Your task to perform on an android device: What's on my calendar tomorrow? Image 0: 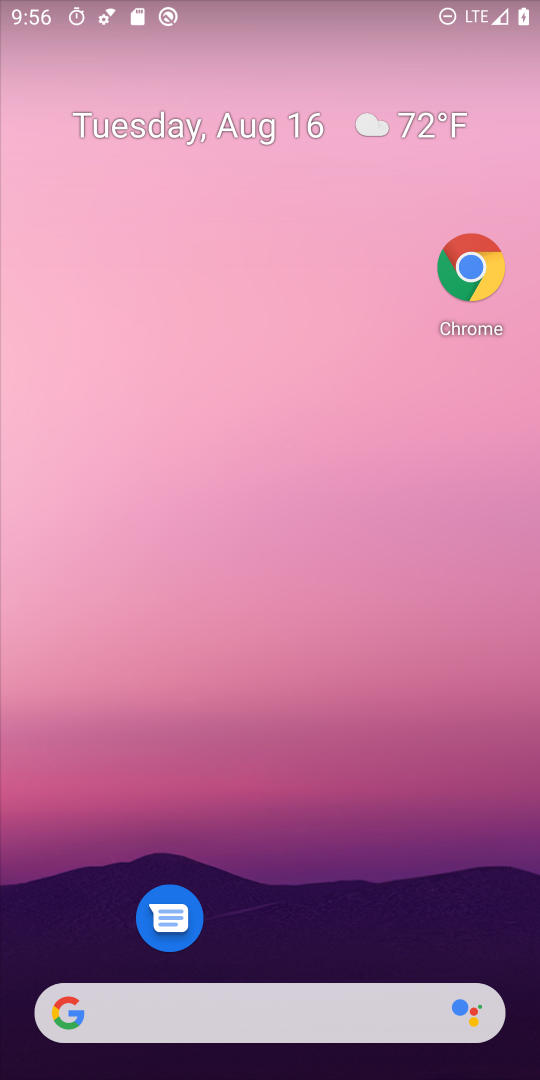
Step 0: drag from (292, 941) to (297, 91)
Your task to perform on an android device: What's on my calendar tomorrow? Image 1: 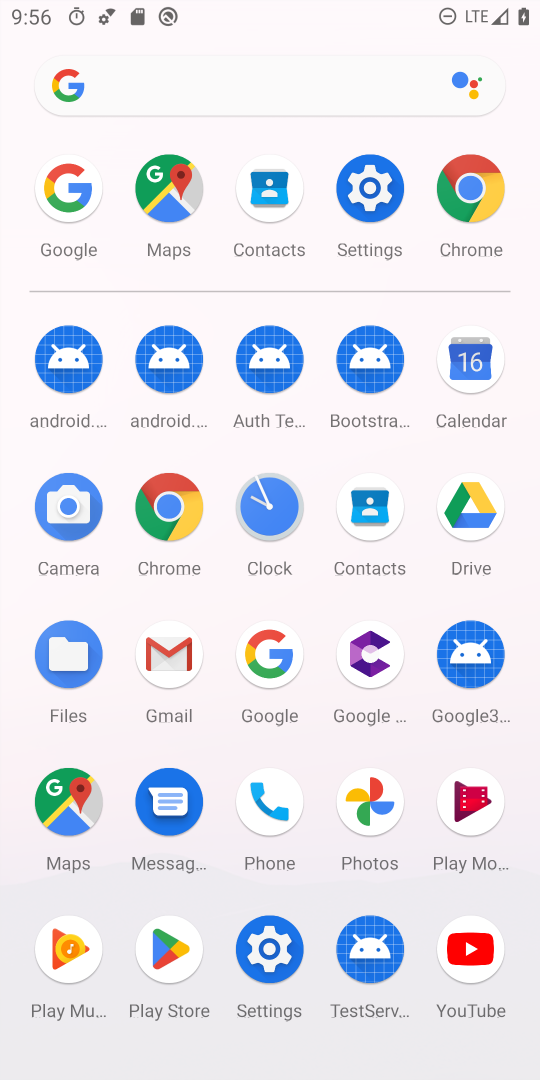
Step 1: click (482, 390)
Your task to perform on an android device: What's on my calendar tomorrow? Image 2: 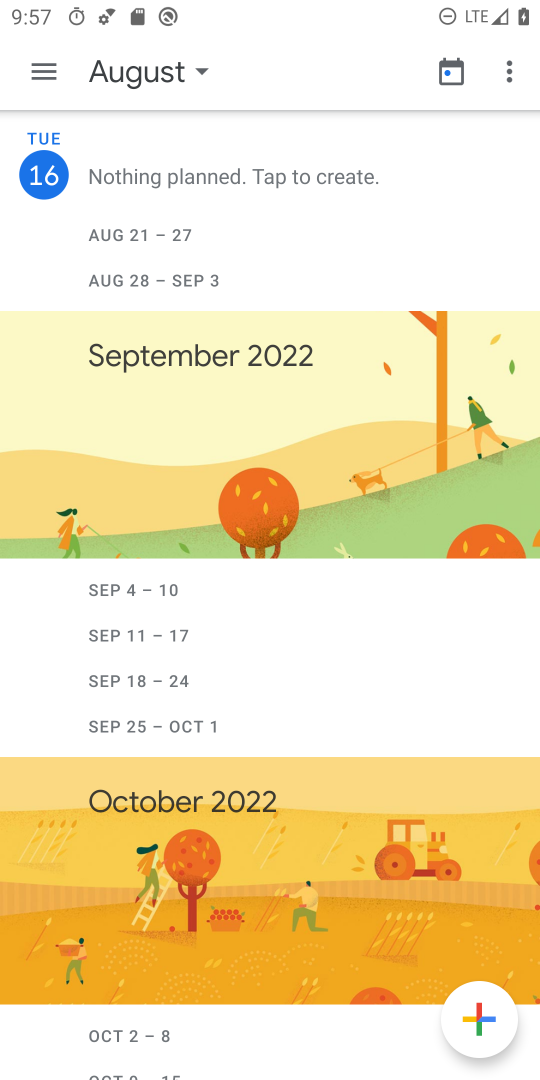
Step 2: click (175, 76)
Your task to perform on an android device: What's on my calendar tomorrow? Image 3: 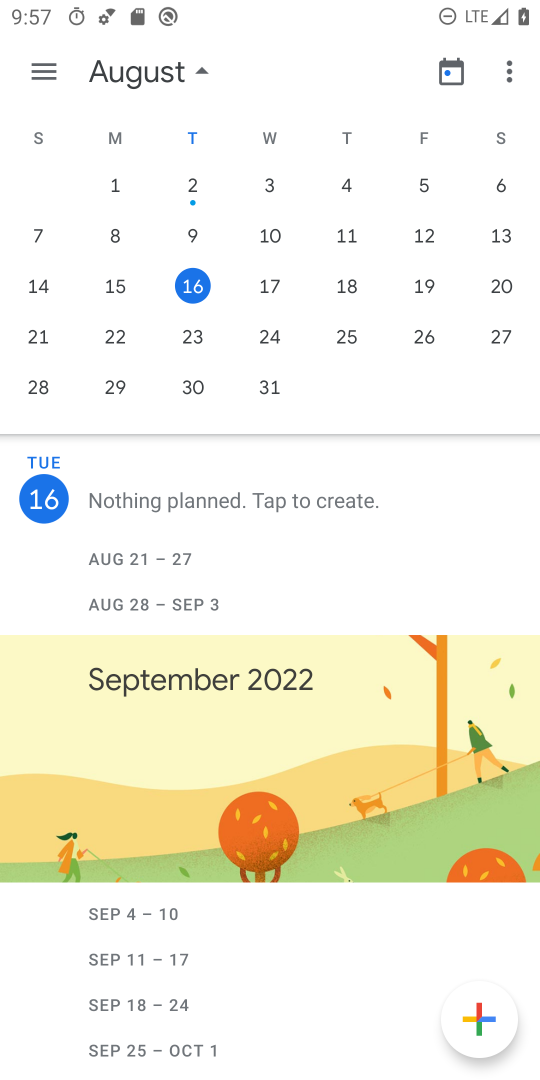
Step 3: click (266, 292)
Your task to perform on an android device: What's on my calendar tomorrow? Image 4: 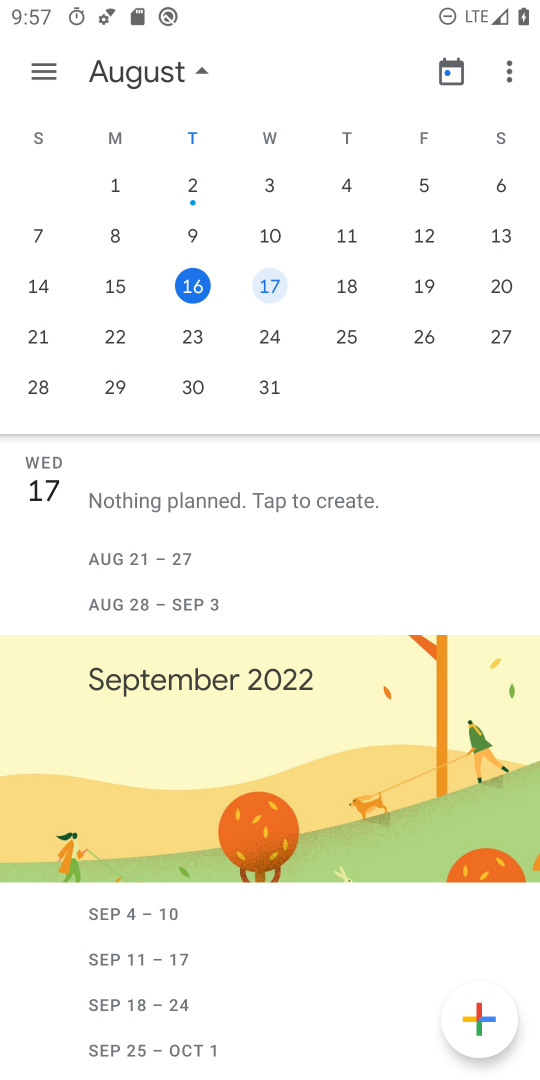
Step 4: task complete